Your task to perform on an android device: Go to Maps Image 0: 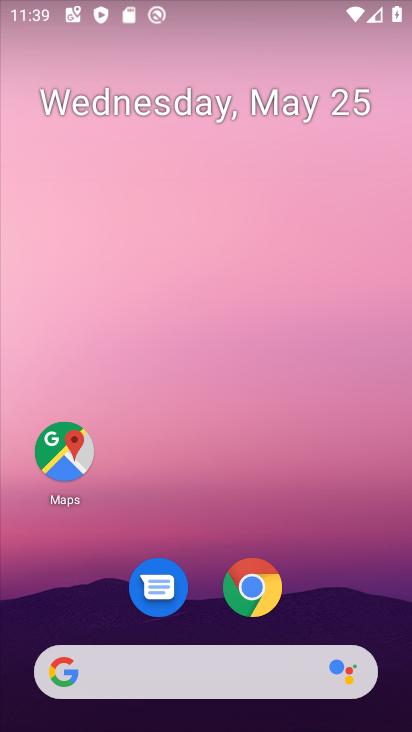
Step 0: drag from (303, 695) to (281, 180)
Your task to perform on an android device: Go to Maps Image 1: 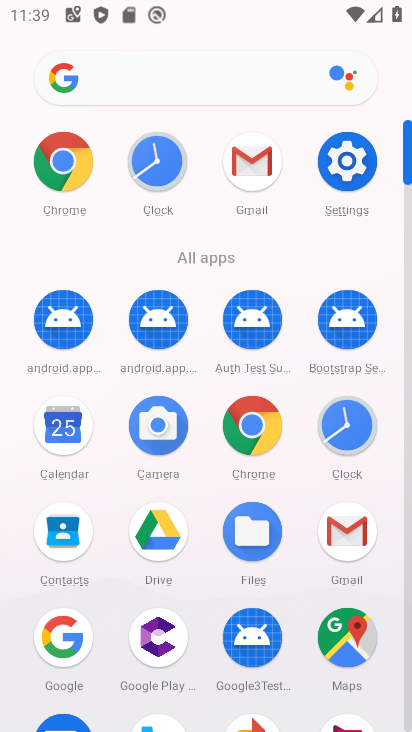
Step 1: click (360, 622)
Your task to perform on an android device: Go to Maps Image 2: 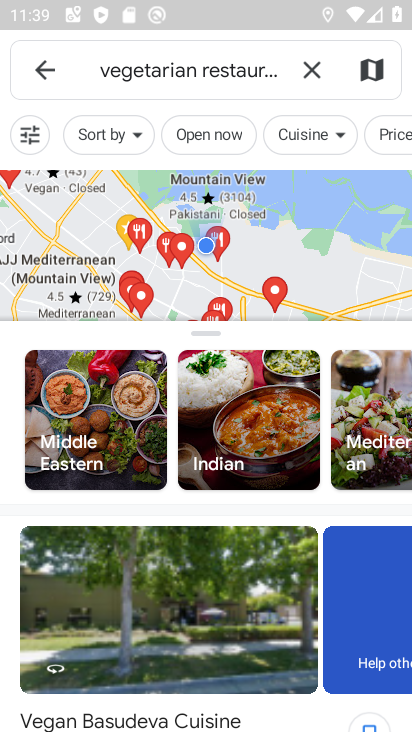
Step 2: click (35, 81)
Your task to perform on an android device: Go to Maps Image 3: 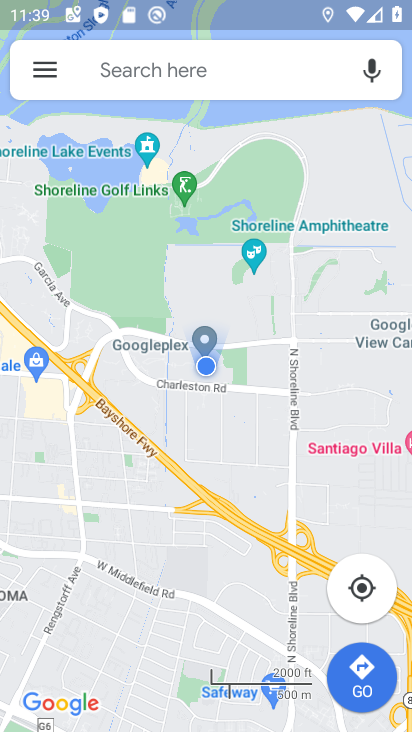
Step 3: click (356, 592)
Your task to perform on an android device: Go to Maps Image 4: 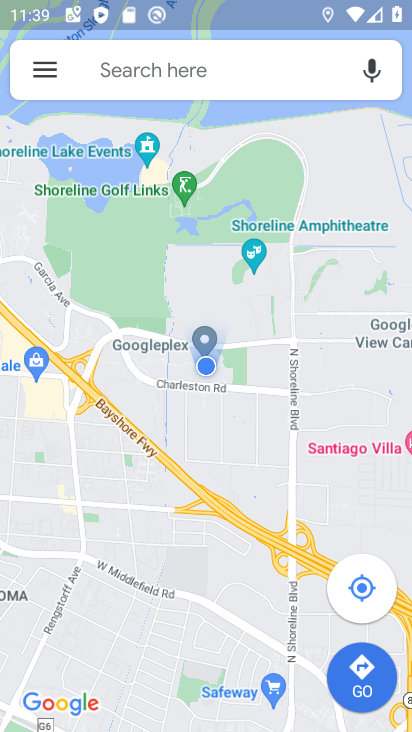
Step 4: task complete